Your task to perform on an android device: Open Amazon Image 0: 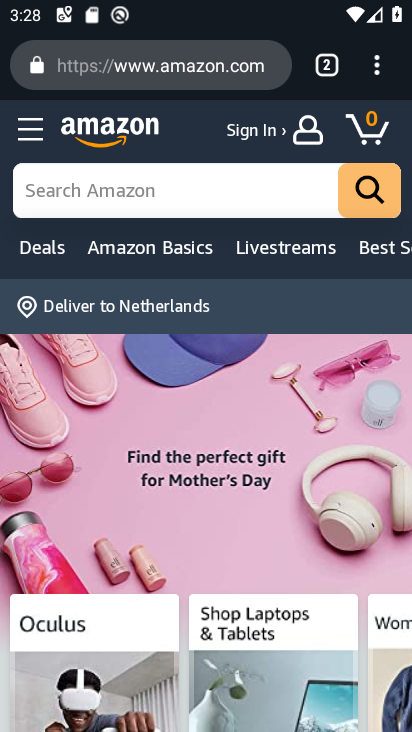
Step 0: click (283, 343)
Your task to perform on an android device: Open Amazon Image 1: 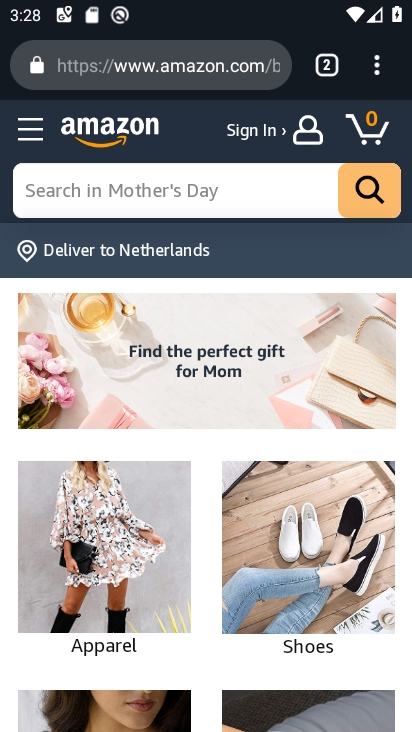
Step 1: task complete